Your task to perform on an android device: change alarm snooze length Image 0: 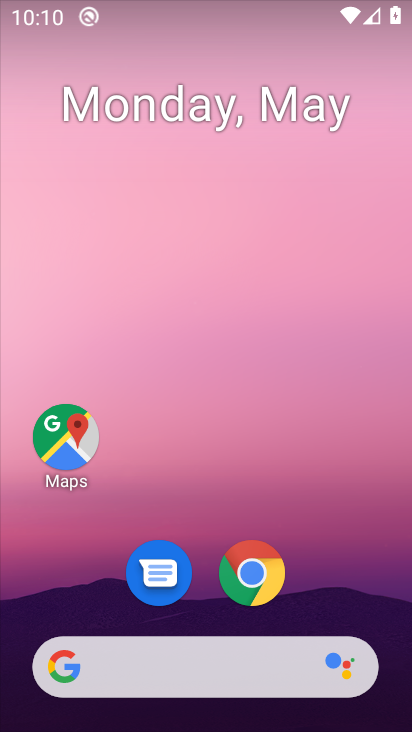
Step 0: drag from (195, 517) to (246, 100)
Your task to perform on an android device: change alarm snooze length Image 1: 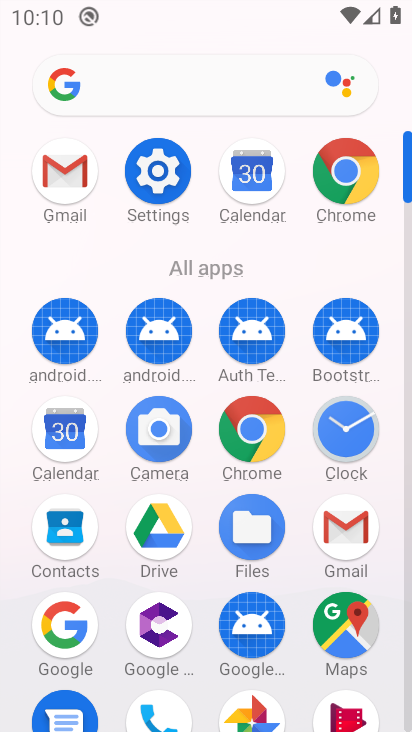
Step 1: click (338, 439)
Your task to perform on an android device: change alarm snooze length Image 2: 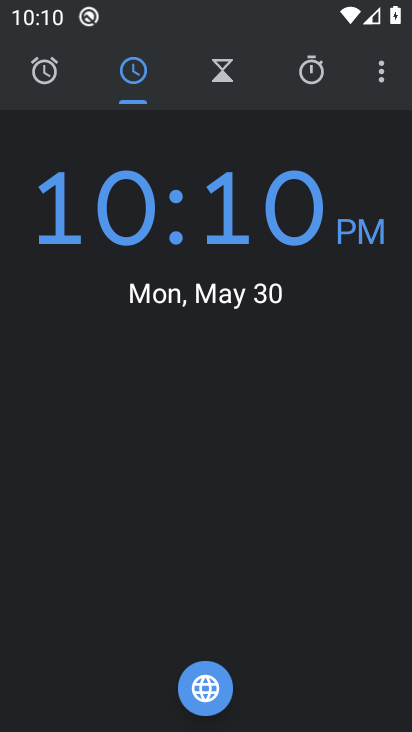
Step 2: click (377, 68)
Your task to perform on an android device: change alarm snooze length Image 3: 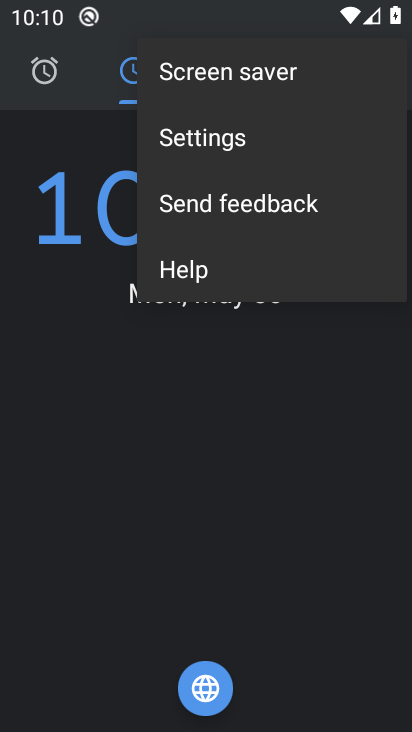
Step 3: click (239, 149)
Your task to perform on an android device: change alarm snooze length Image 4: 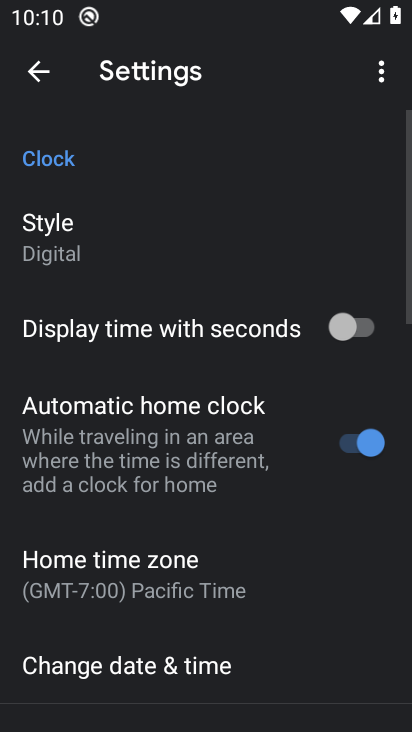
Step 4: drag from (238, 635) to (245, 174)
Your task to perform on an android device: change alarm snooze length Image 5: 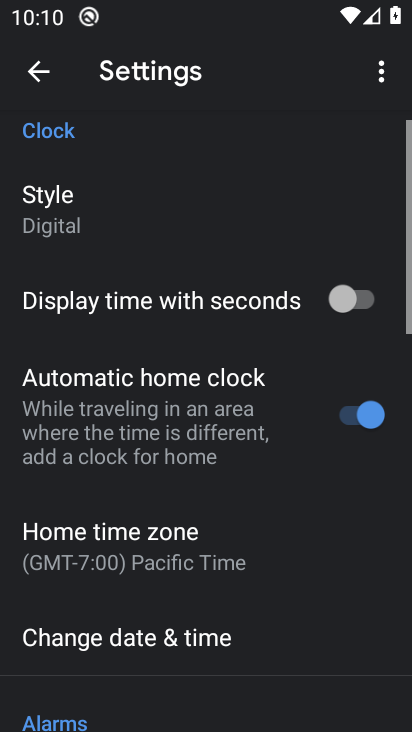
Step 5: drag from (190, 633) to (229, 169)
Your task to perform on an android device: change alarm snooze length Image 6: 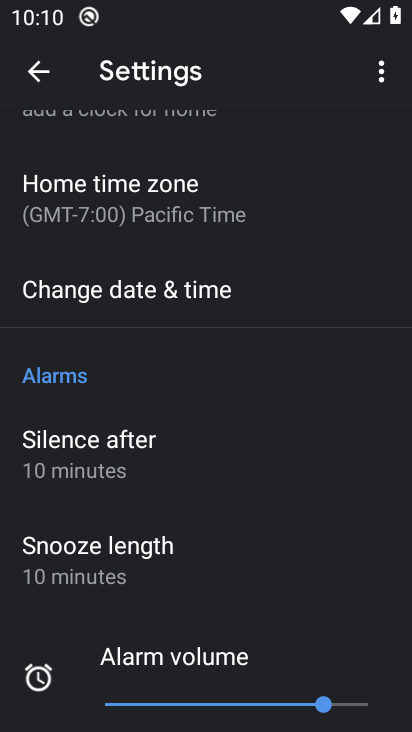
Step 6: click (108, 572)
Your task to perform on an android device: change alarm snooze length Image 7: 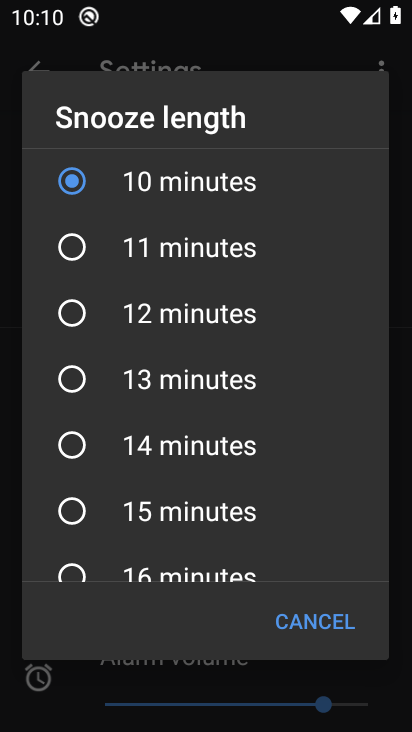
Step 7: click (73, 236)
Your task to perform on an android device: change alarm snooze length Image 8: 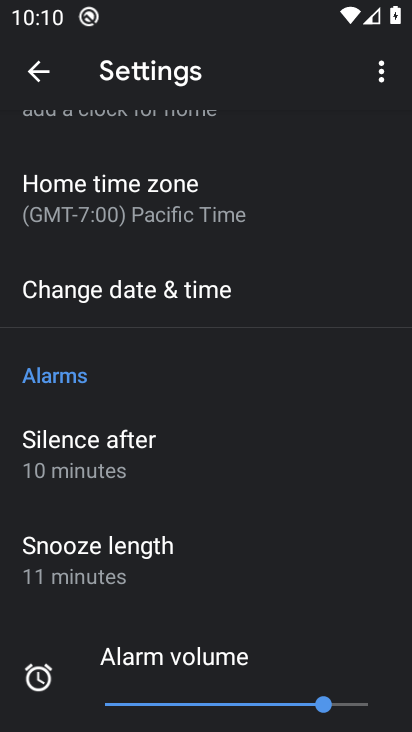
Step 8: task complete